Your task to perform on an android device: What's the weather today? Image 0: 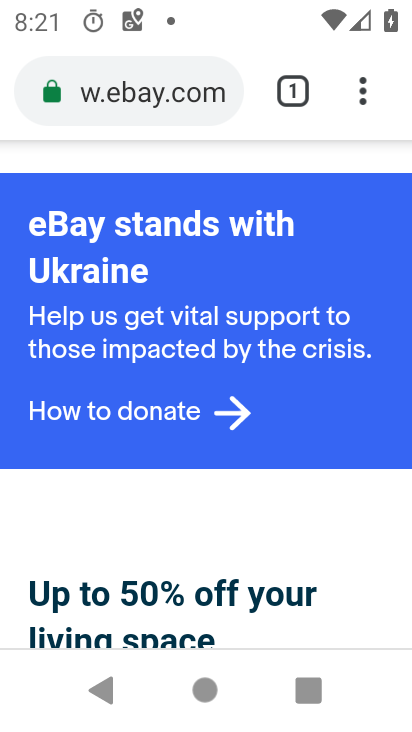
Step 0: press home button
Your task to perform on an android device: What's the weather today? Image 1: 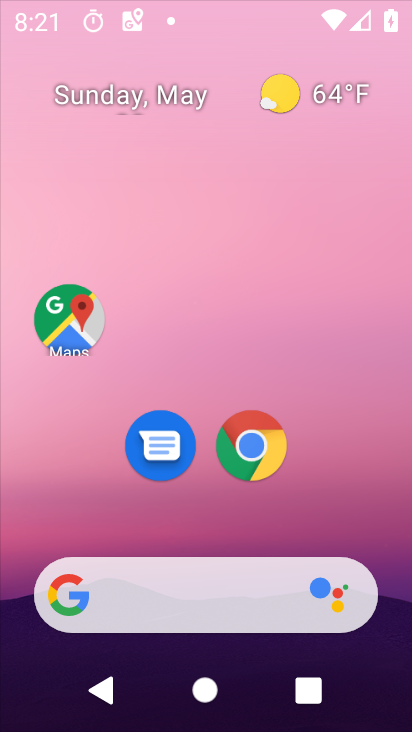
Step 1: drag from (232, 594) to (323, 72)
Your task to perform on an android device: What's the weather today? Image 2: 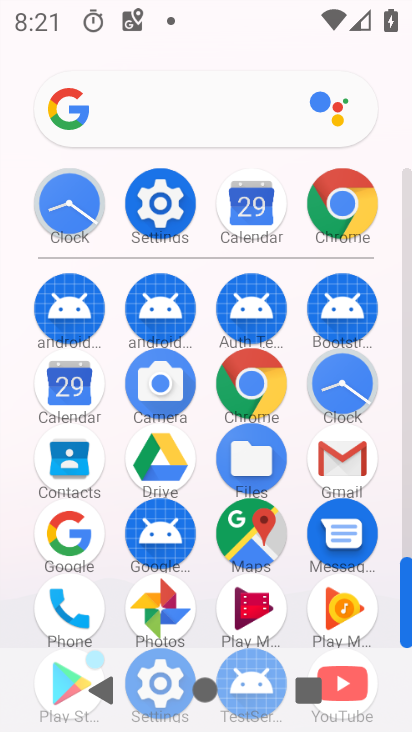
Step 2: click (147, 105)
Your task to perform on an android device: What's the weather today? Image 3: 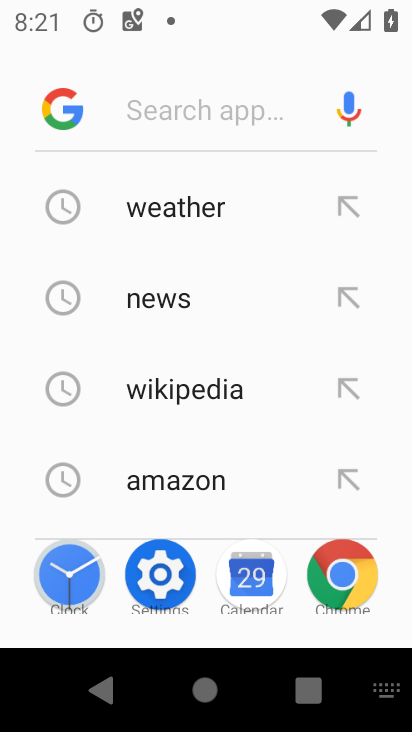
Step 3: click (166, 215)
Your task to perform on an android device: What's the weather today? Image 4: 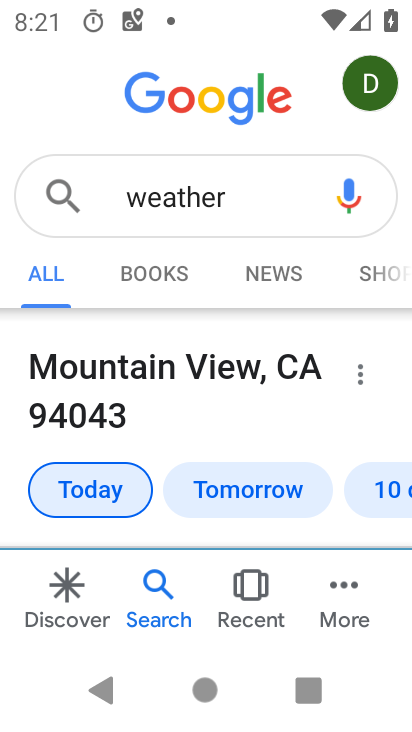
Step 4: task complete